Your task to perform on an android device: Do I have any events this weekend? Image 0: 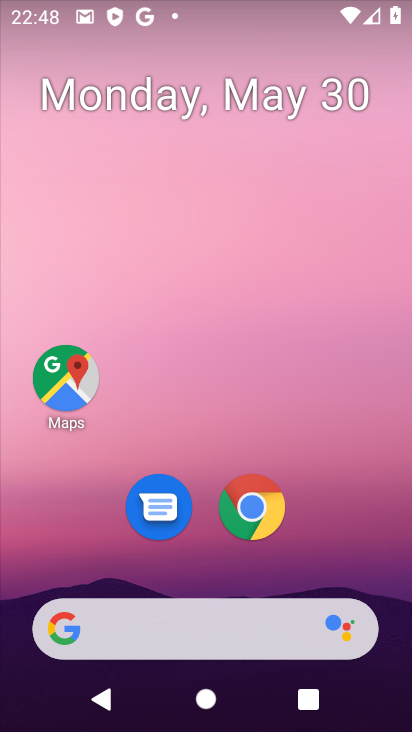
Step 0: drag from (372, 556) to (362, 273)
Your task to perform on an android device: Do I have any events this weekend? Image 1: 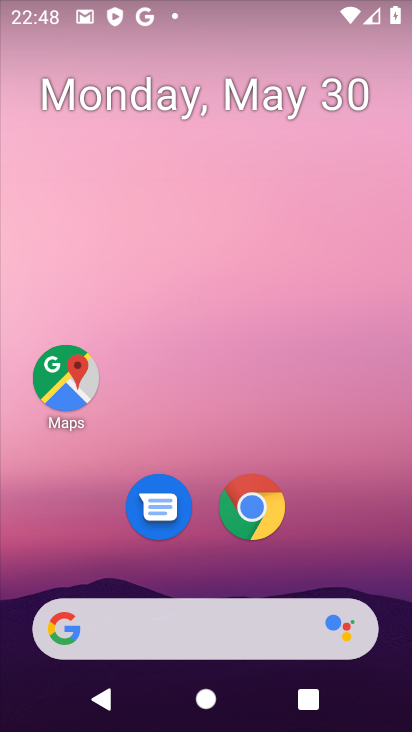
Step 1: drag from (372, 570) to (369, 211)
Your task to perform on an android device: Do I have any events this weekend? Image 2: 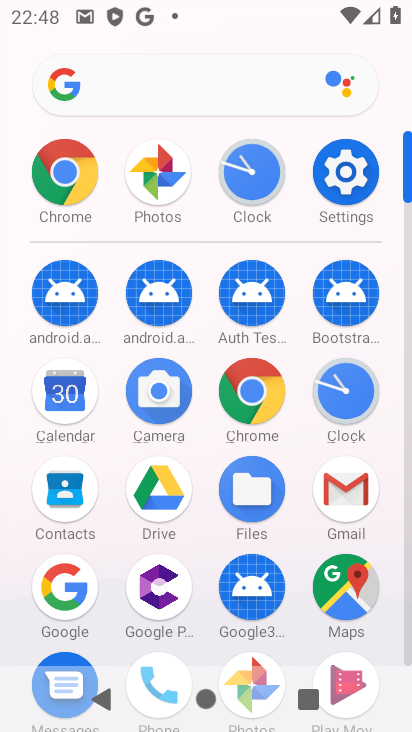
Step 2: click (72, 398)
Your task to perform on an android device: Do I have any events this weekend? Image 3: 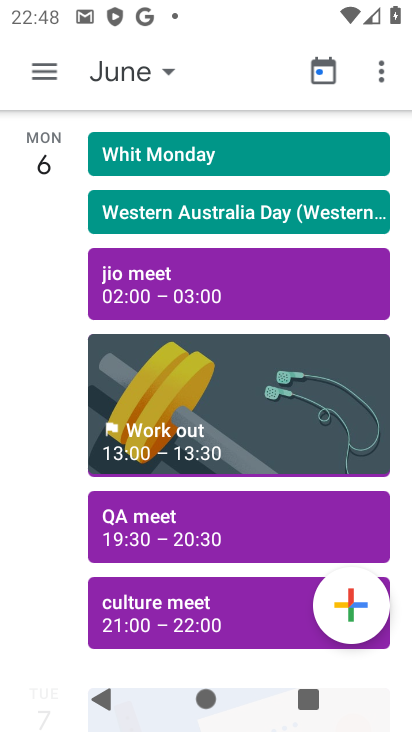
Step 3: drag from (189, 171) to (207, 492)
Your task to perform on an android device: Do I have any events this weekend? Image 4: 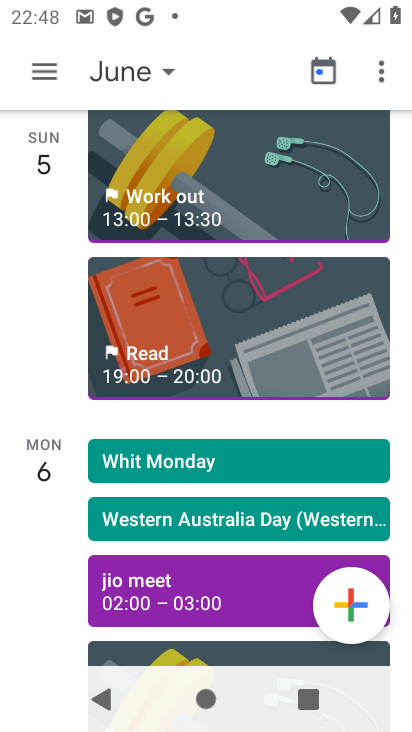
Step 4: drag from (218, 196) to (221, 386)
Your task to perform on an android device: Do I have any events this weekend? Image 5: 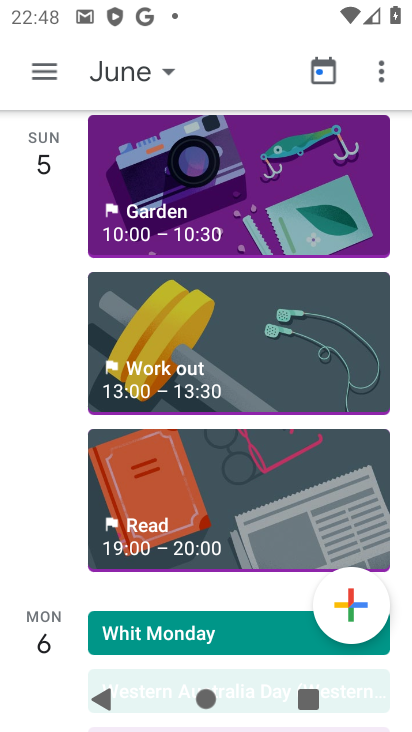
Step 5: click (245, 181)
Your task to perform on an android device: Do I have any events this weekend? Image 6: 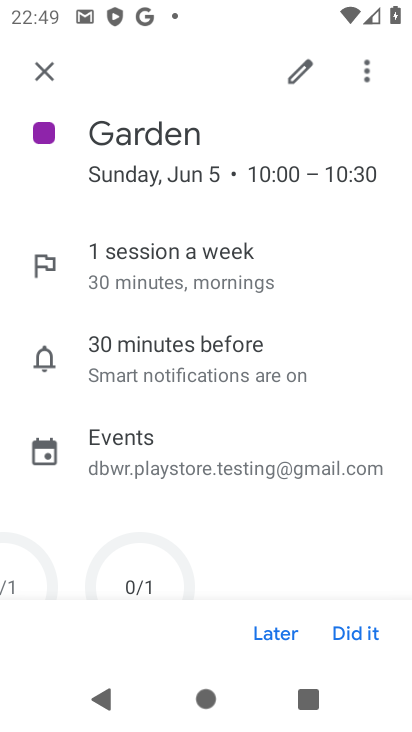
Step 6: task complete